Your task to perform on an android device: change your default location settings in chrome Image 0: 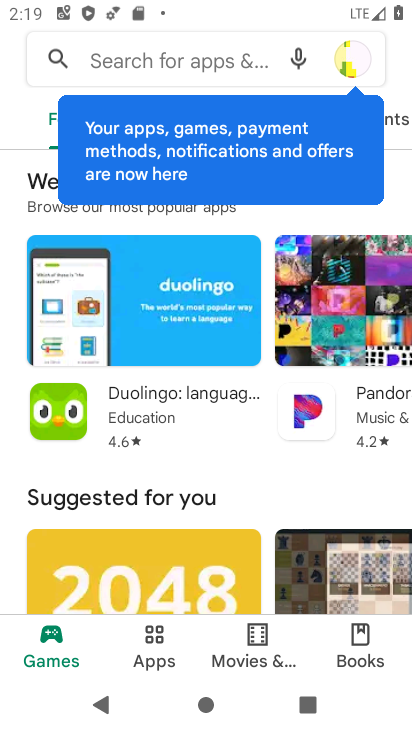
Step 0: press home button
Your task to perform on an android device: change your default location settings in chrome Image 1: 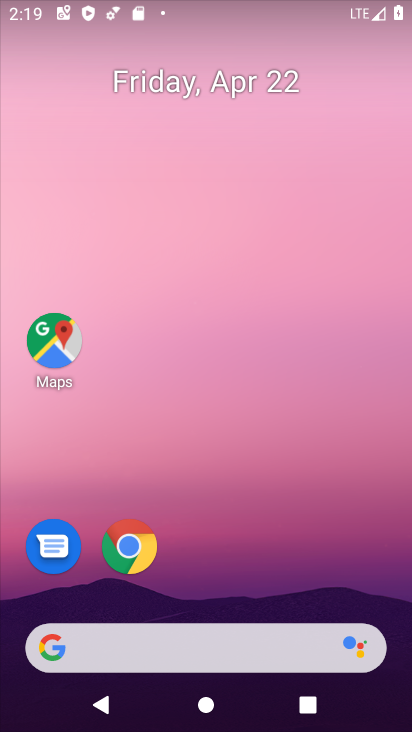
Step 1: drag from (162, 514) to (244, 210)
Your task to perform on an android device: change your default location settings in chrome Image 2: 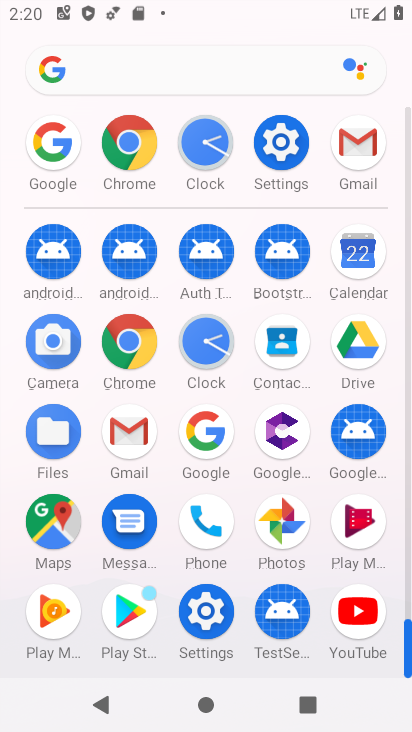
Step 2: click (138, 160)
Your task to perform on an android device: change your default location settings in chrome Image 3: 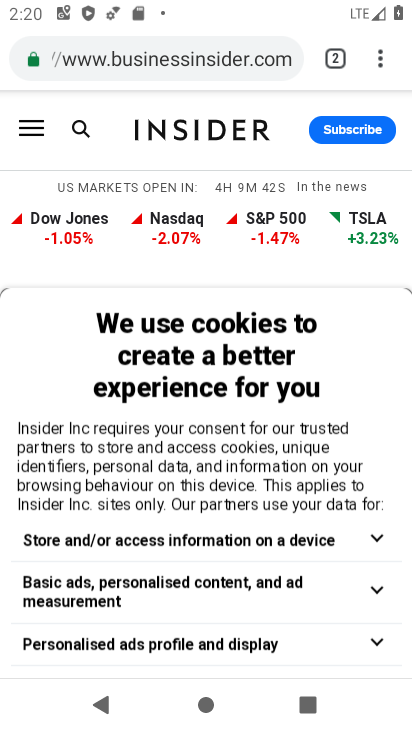
Step 3: click (376, 68)
Your task to perform on an android device: change your default location settings in chrome Image 4: 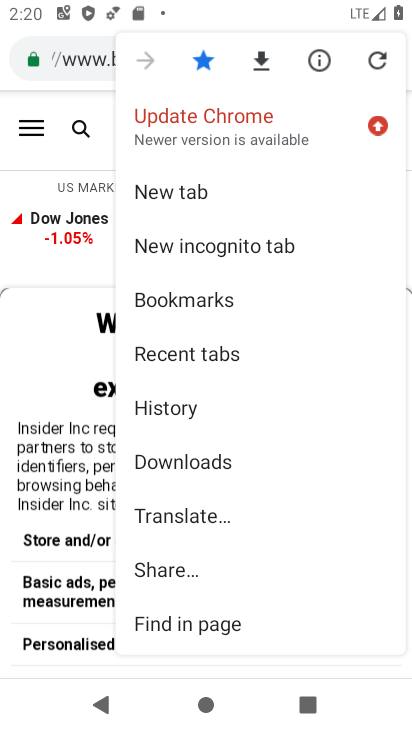
Step 4: drag from (266, 483) to (282, 365)
Your task to perform on an android device: change your default location settings in chrome Image 5: 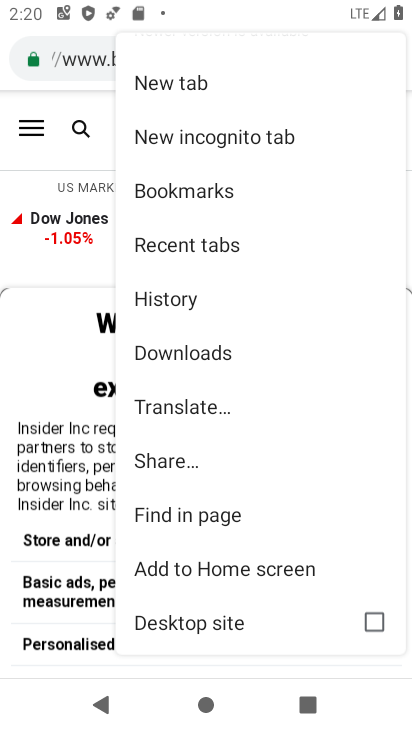
Step 5: drag from (217, 525) to (239, 282)
Your task to perform on an android device: change your default location settings in chrome Image 6: 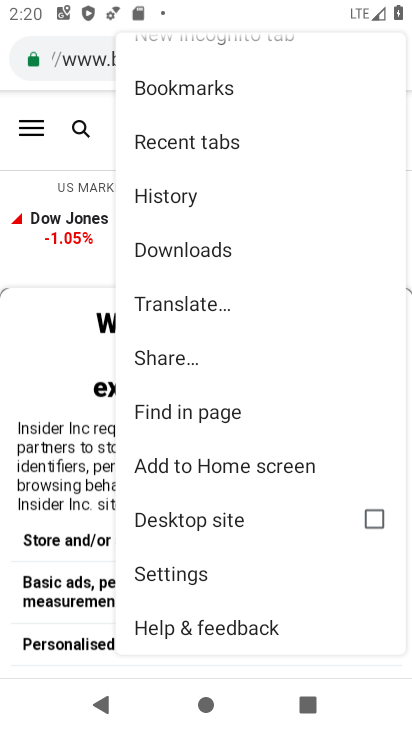
Step 6: click (203, 576)
Your task to perform on an android device: change your default location settings in chrome Image 7: 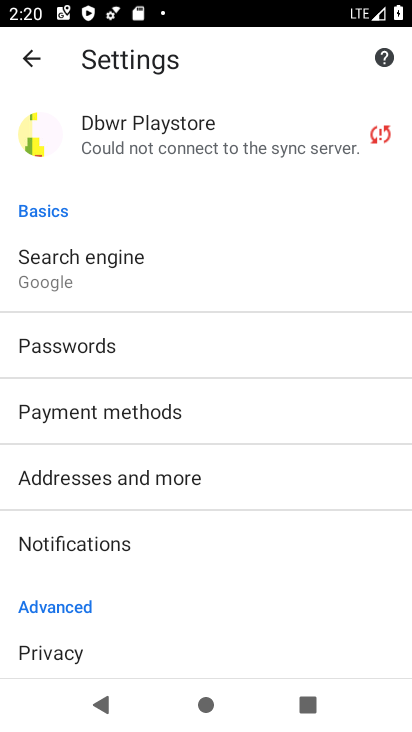
Step 7: drag from (203, 576) to (260, 296)
Your task to perform on an android device: change your default location settings in chrome Image 8: 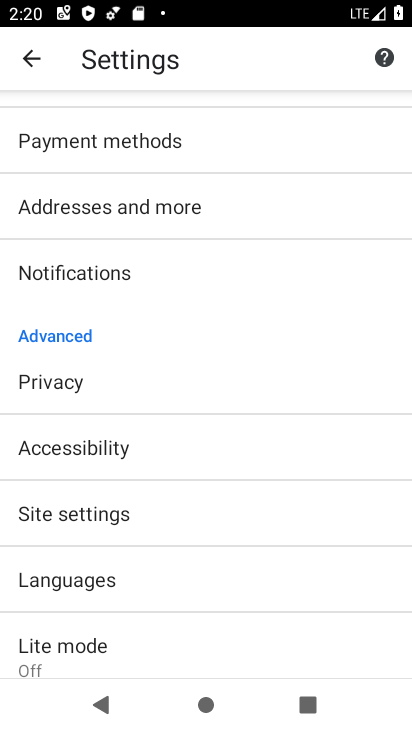
Step 8: click (182, 509)
Your task to perform on an android device: change your default location settings in chrome Image 9: 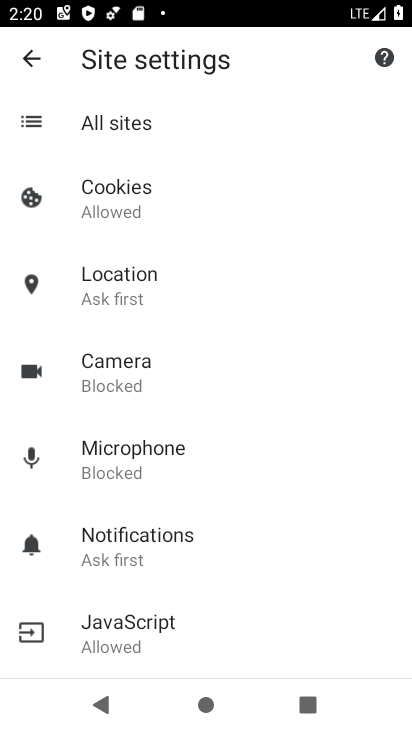
Step 9: click (198, 290)
Your task to perform on an android device: change your default location settings in chrome Image 10: 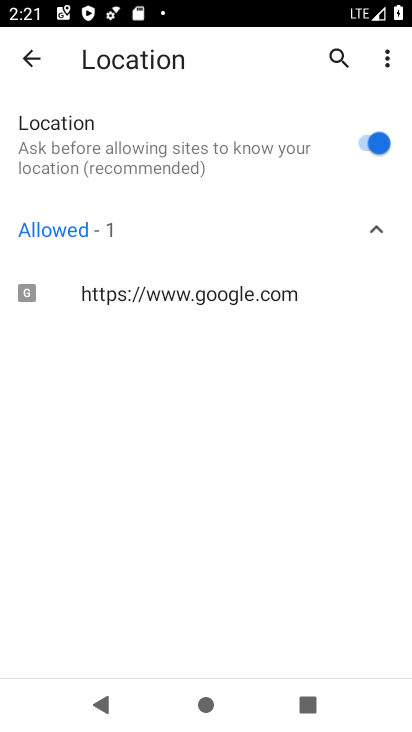
Step 10: click (351, 137)
Your task to perform on an android device: change your default location settings in chrome Image 11: 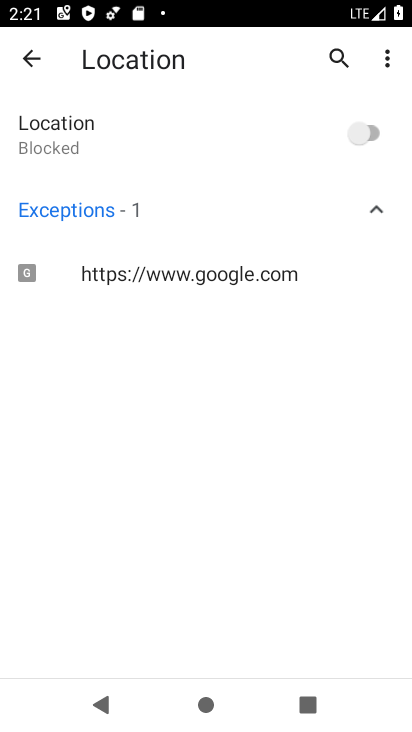
Step 11: task complete